Your task to perform on an android device: Go to CNN.com Image 0: 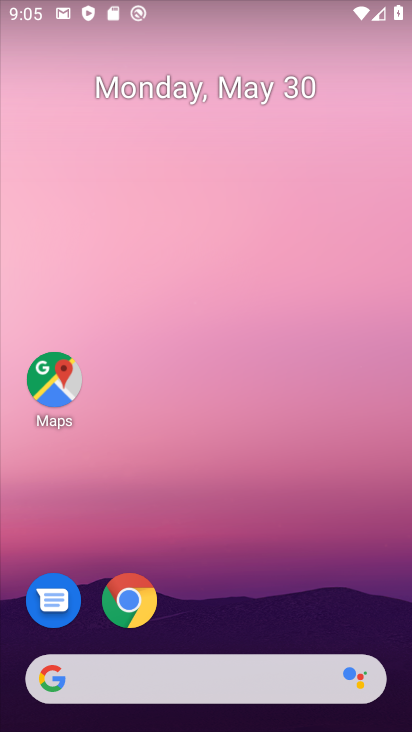
Step 0: press home button
Your task to perform on an android device: Go to CNN.com Image 1: 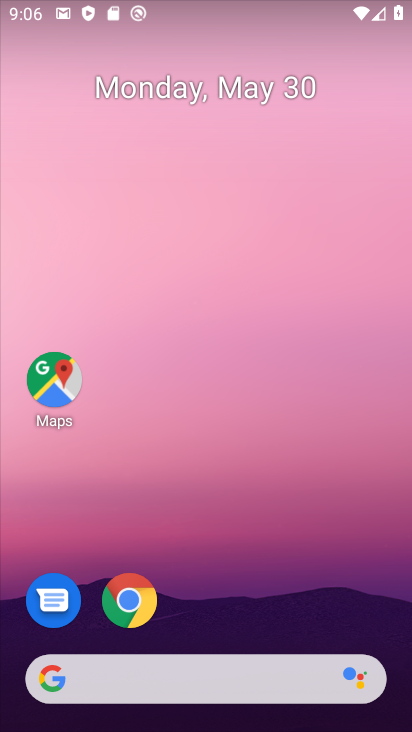
Step 1: click (61, 682)
Your task to perform on an android device: Go to CNN.com Image 2: 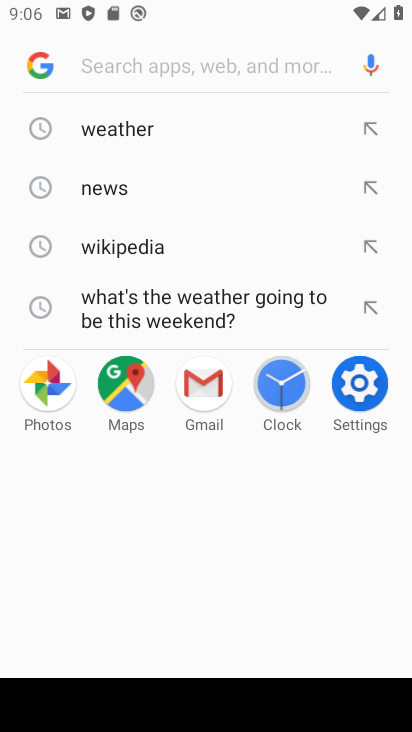
Step 2: type "CNN.com"
Your task to perform on an android device: Go to CNN.com Image 3: 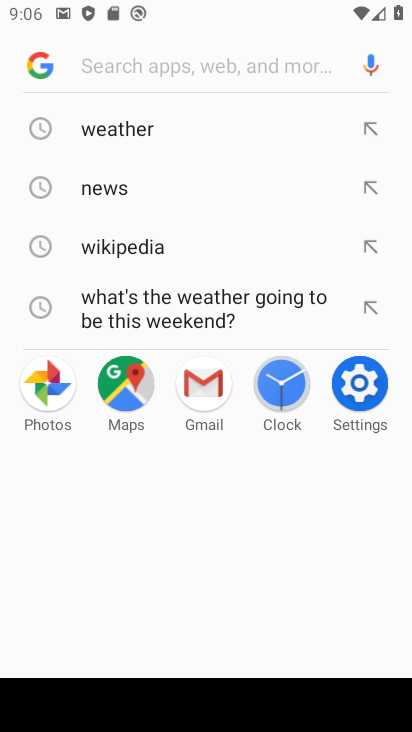
Step 3: click (219, 63)
Your task to perform on an android device: Go to CNN.com Image 4: 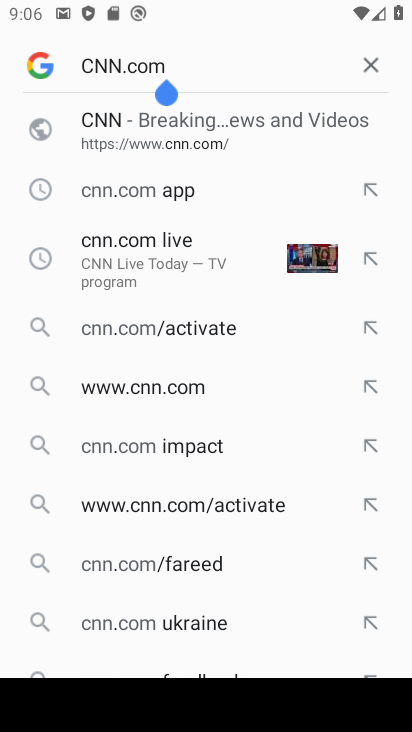
Step 4: click (152, 123)
Your task to perform on an android device: Go to CNN.com Image 5: 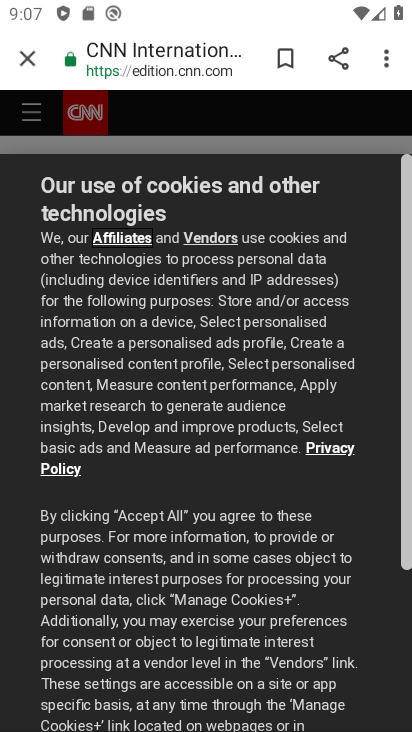
Step 5: task complete